Your task to perform on an android device: stop showing notifications on the lock screen Image 0: 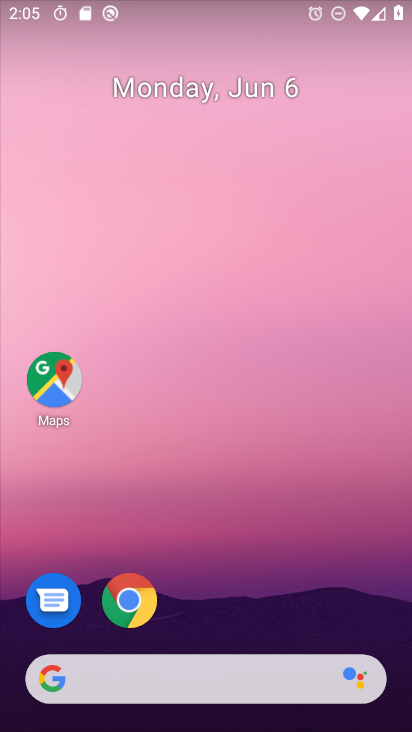
Step 0: drag from (209, 622) to (214, 152)
Your task to perform on an android device: stop showing notifications on the lock screen Image 1: 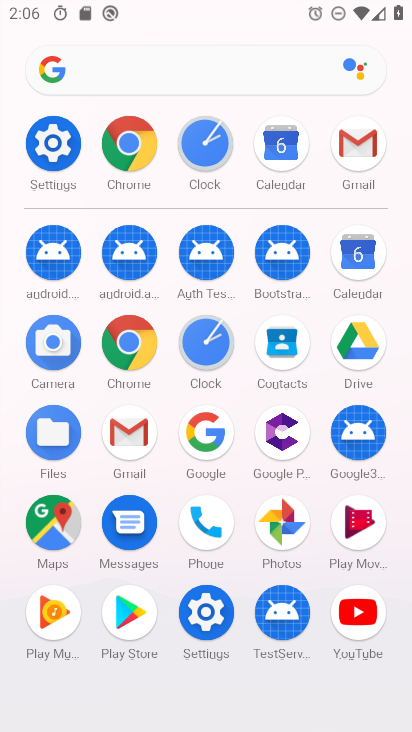
Step 1: click (28, 148)
Your task to perform on an android device: stop showing notifications on the lock screen Image 2: 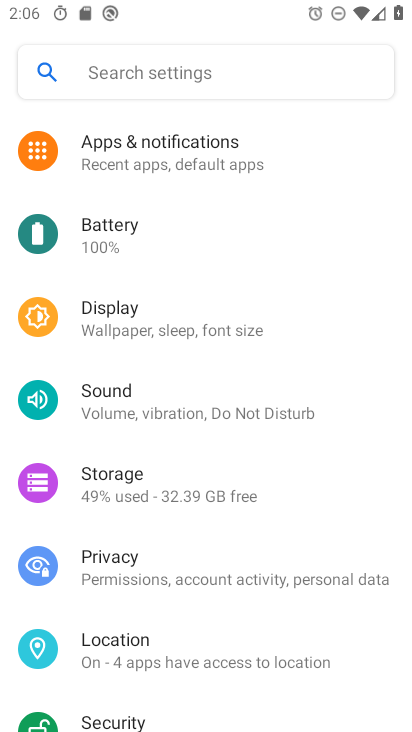
Step 2: click (198, 168)
Your task to perform on an android device: stop showing notifications on the lock screen Image 3: 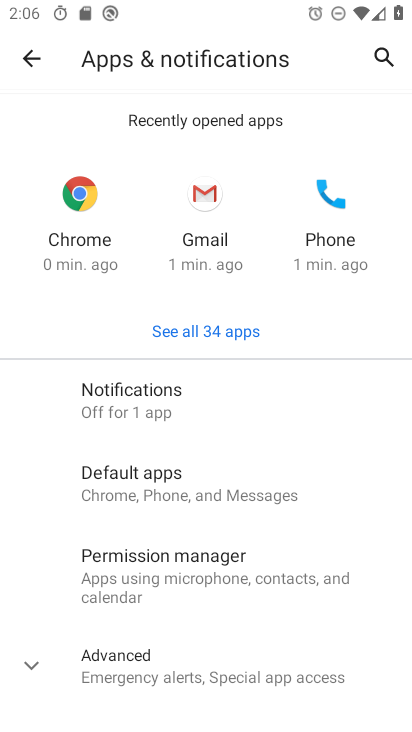
Step 3: click (164, 403)
Your task to perform on an android device: stop showing notifications on the lock screen Image 4: 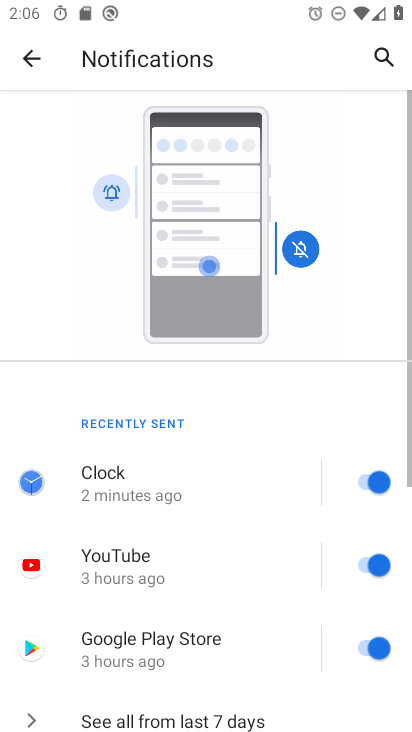
Step 4: drag from (192, 596) to (192, 243)
Your task to perform on an android device: stop showing notifications on the lock screen Image 5: 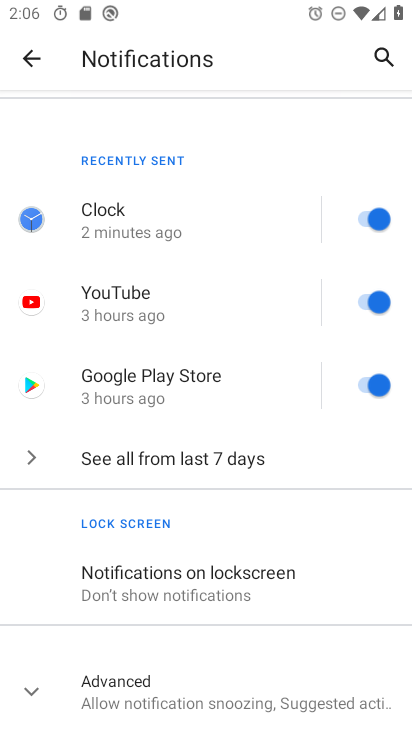
Step 5: click (220, 585)
Your task to perform on an android device: stop showing notifications on the lock screen Image 6: 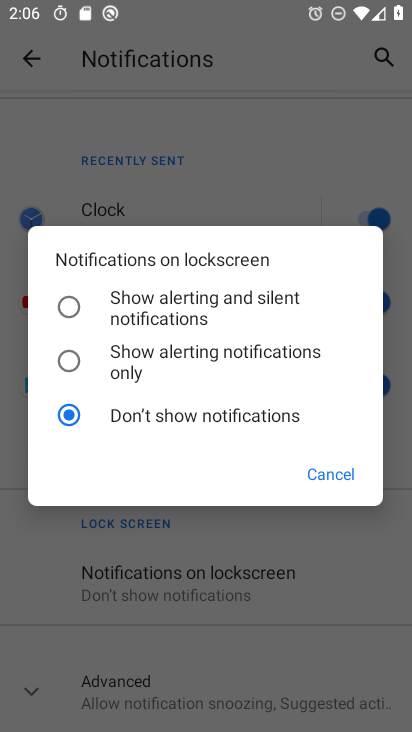
Step 6: task complete